Your task to perform on an android device: uninstall "Duolingo: language lessons" Image 0: 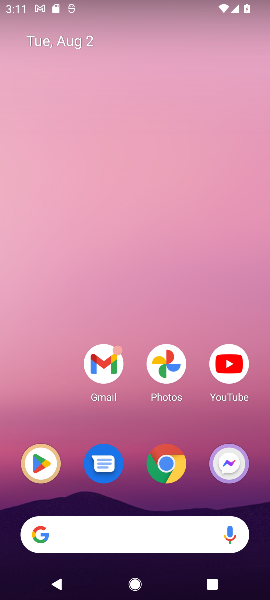
Step 0: press home button
Your task to perform on an android device: uninstall "Duolingo: language lessons" Image 1: 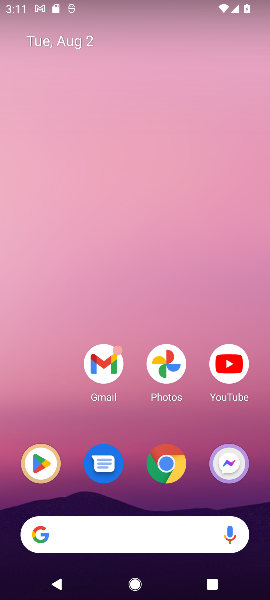
Step 1: press home button
Your task to perform on an android device: uninstall "Duolingo: language lessons" Image 2: 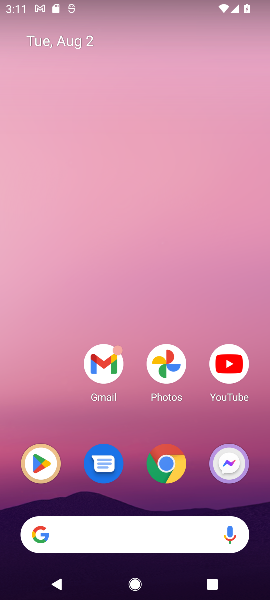
Step 2: click (41, 461)
Your task to perform on an android device: uninstall "Duolingo: language lessons" Image 3: 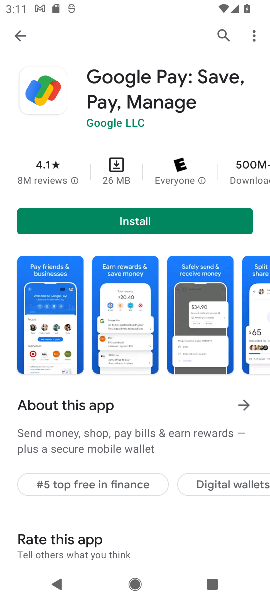
Step 3: click (219, 30)
Your task to perform on an android device: uninstall "Duolingo: language lessons" Image 4: 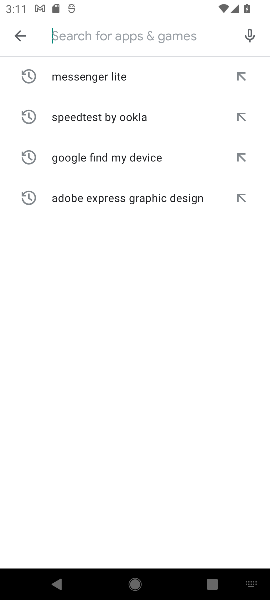
Step 4: type "Duolingo: language lessons"
Your task to perform on an android device: uninstall "Duolingo: language lessons" Image 5: 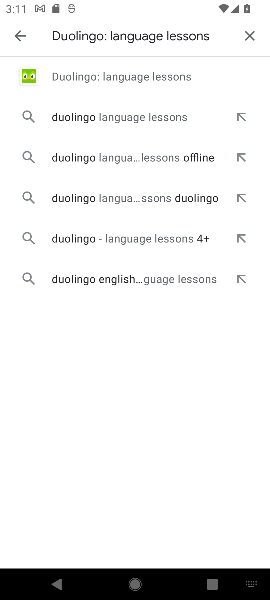
Step 5: click (124, 74)
Your task to perform on an android device: uninstall "Duolingo: language lessons" Image 6: 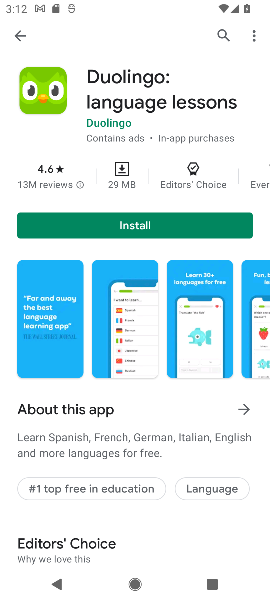
Step 6: task complete